Your task to perform on an android device: check storage Image 0: 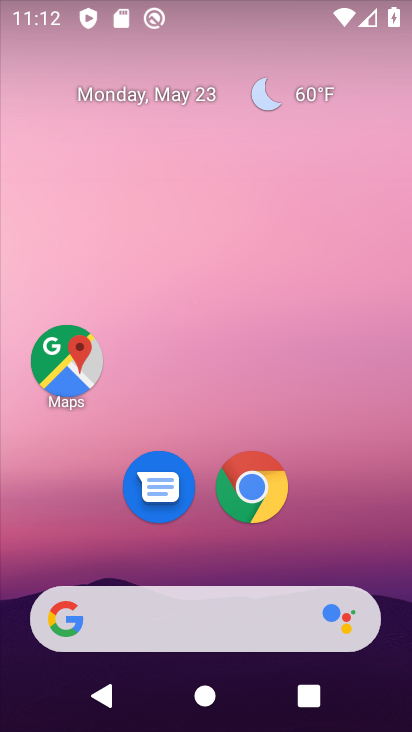
Step 0: drag from (86, 586) to (211, 86)
Your task to perform on an android device: check storage Image 1: 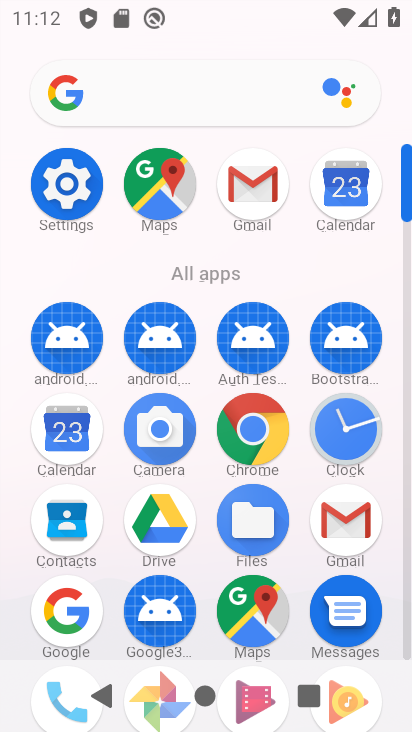
Step 1: drag from (167, 573) to (244, 374)
Your task to perform on an android device: check storage Image 2: 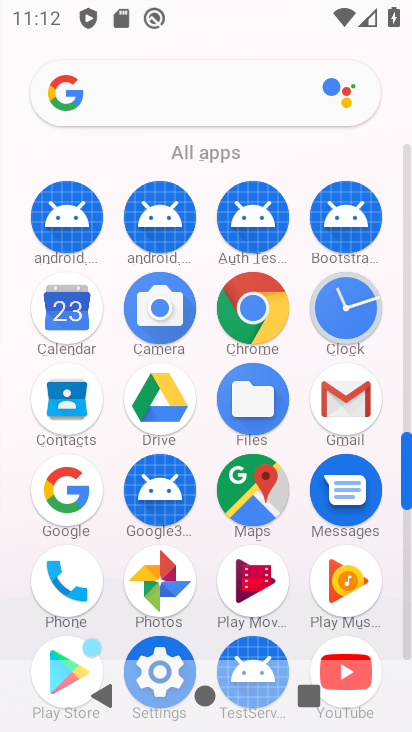
Step 2: drag from (144, 620) to (189, 440)
Your task to perform on an android device: check storage Image 3: 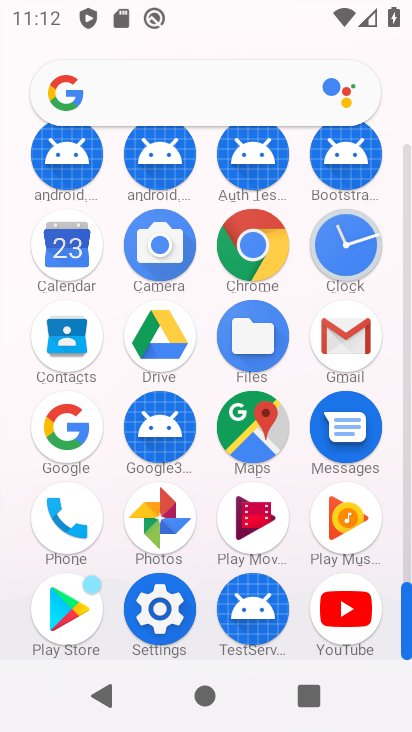
Step 3: click (161, 623)
Your task to perform on an android device: check storage Image 4: 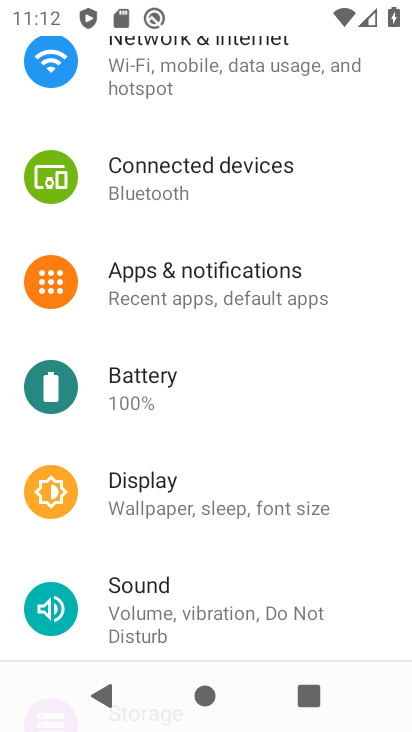
Step 4: drag from (167, 602) to (242, 306)
Your task to perform on an android device: check storage Image 5: 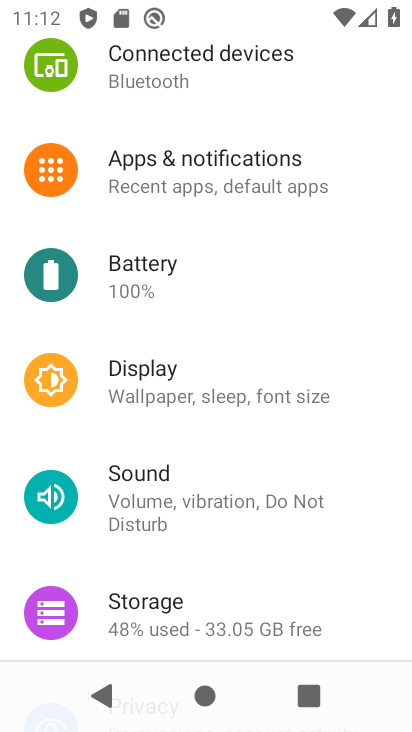
Step 5: click (169, 601)
Your task to perform on an android device: check storage Image 6: 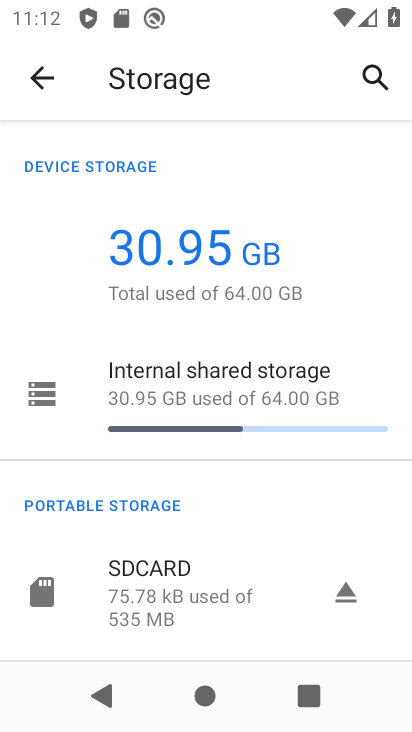
Step 6: click (299, 405)
Your task to perform on an android device: check storage Image 7: 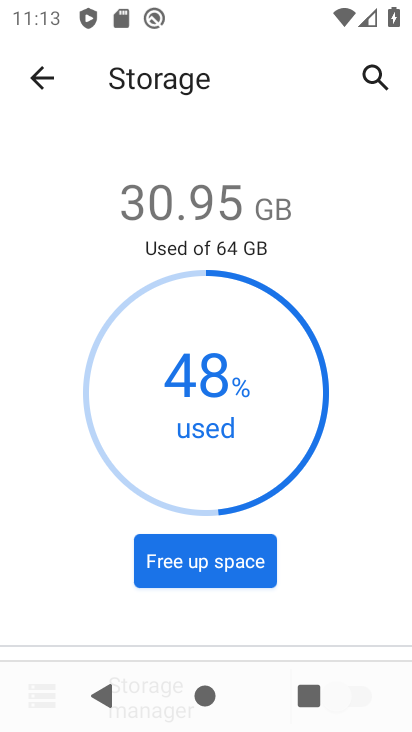
Step 7: task complete